Your task to perform on an android device: turn off data saver in the chrome app Image 0: 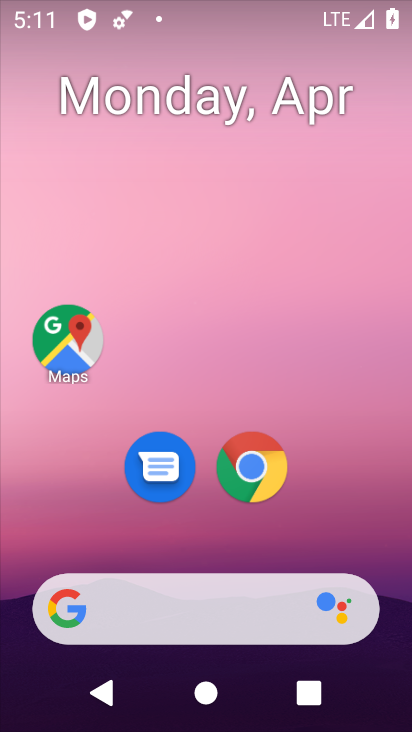
Step 0: drag from (259, 594) to (252, 25)
Your task to perform on an android device: turn off data saver in the chrome app Image 1: 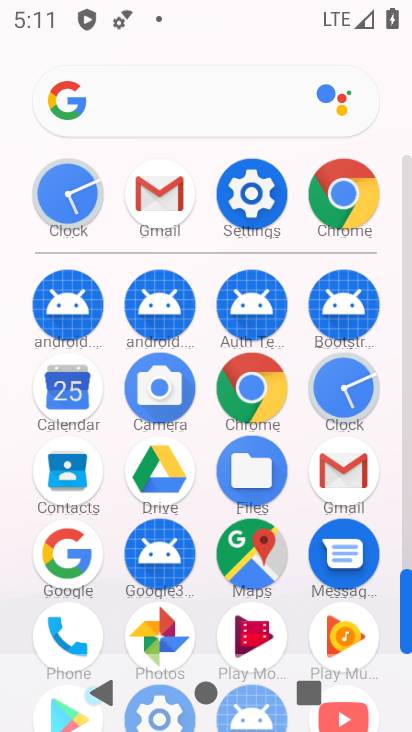
Step 1: click (253, 370)
Your task to perform on an android device: turn off data saver in the chrome app Image 2: 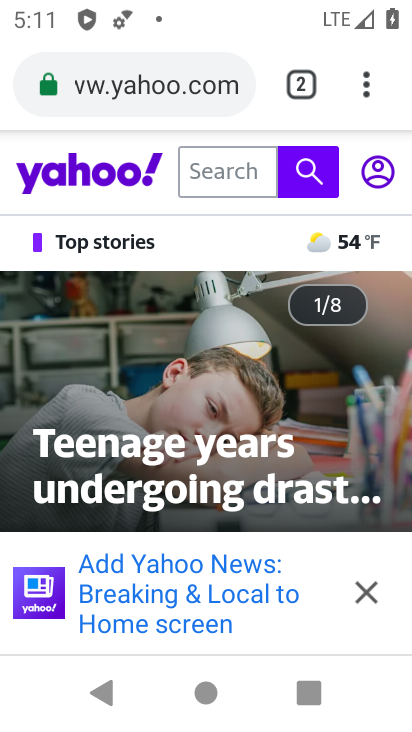
Step 2: drag from (357, 85) to (223, 539)
Your task to perform on an android device: turn off data saver in the chrome app Image 3: 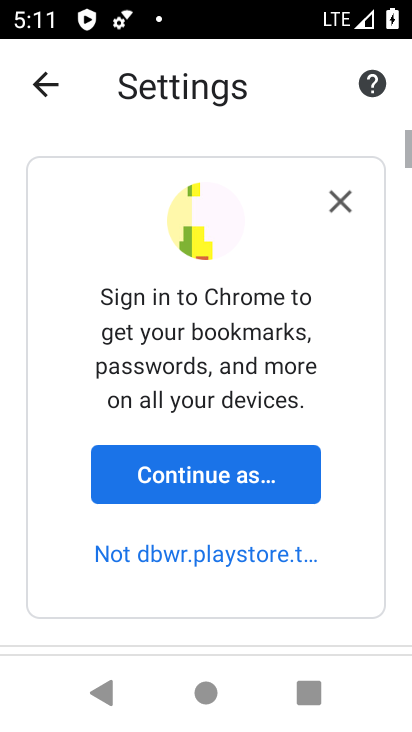
Step 3: drag from (274, 638) to (303, 2)
Your task to perform on an android device: turn off data saver in the chrome app Image 4: 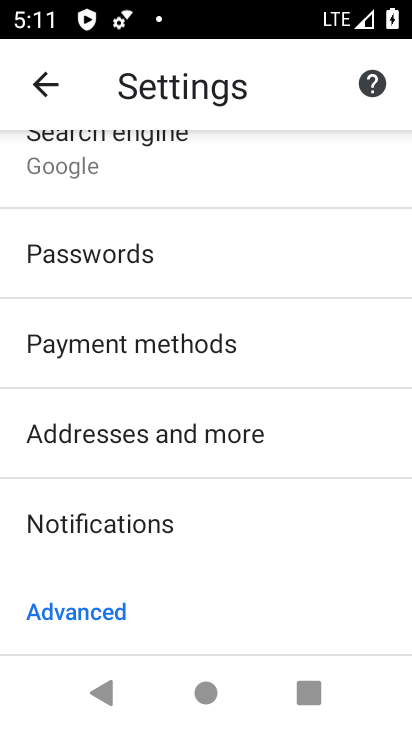
Step 4: drag from (271, 623) to (302, 39)
Your task to perform on an android device: turn off data saver in the chrome app Image 5: 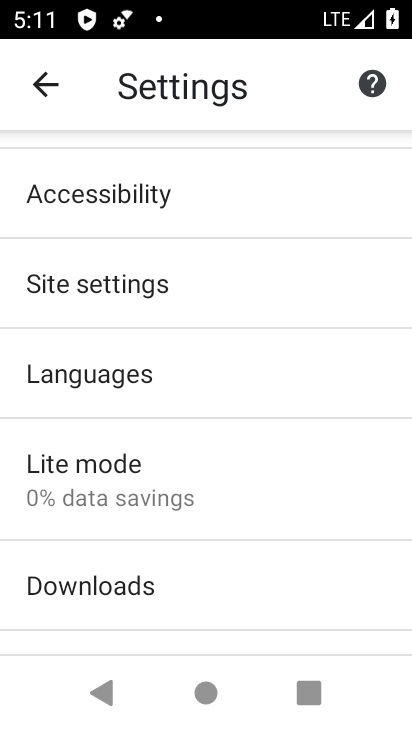
Step 5: drag from (181, 606) to (204, 486)
Your task to perform on an android device: turn off data saver in the chrome app Image 6: 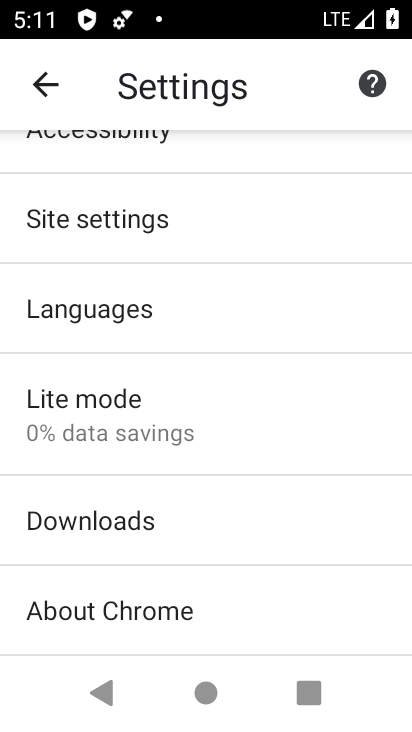
Step 6: click (188, 410)
Your task to perform on an android device: turn off data saver in the chrome app Image 7: 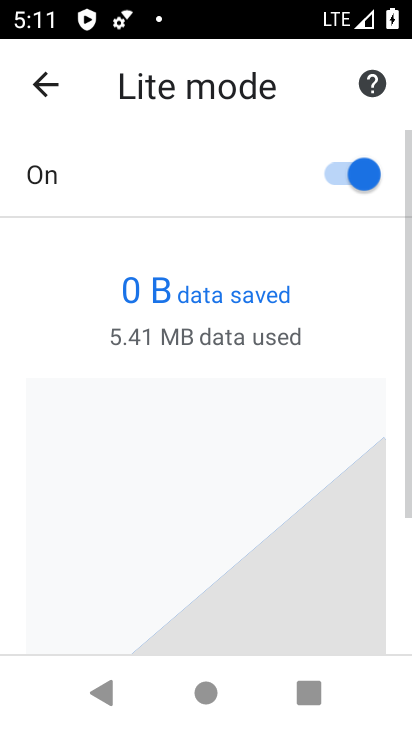
Step 7: click (342, 166)
Your task to perform on an android device: turn off data saver in the chrome app Image 8: 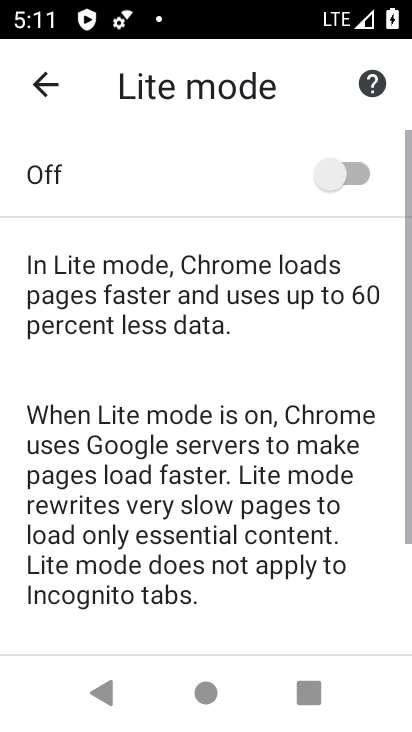
Step 8: task complete